Your task to perform on an android device: Add "corsair k70" to the cart on bestbuy.com Image 0: 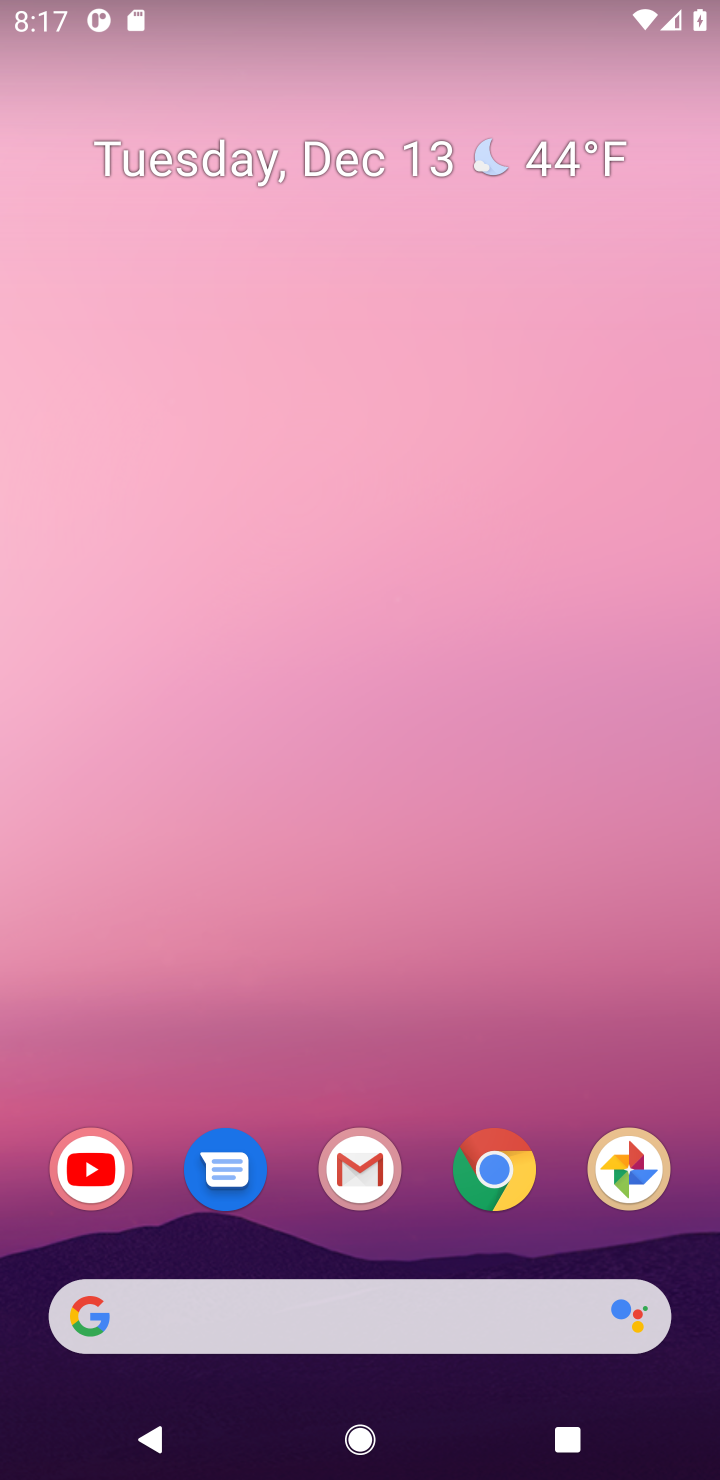
Step 0: click (498, 1200)
Your task to perform on an android device: Add "corsair k70" to the cart on bestbuy.com Image 1: 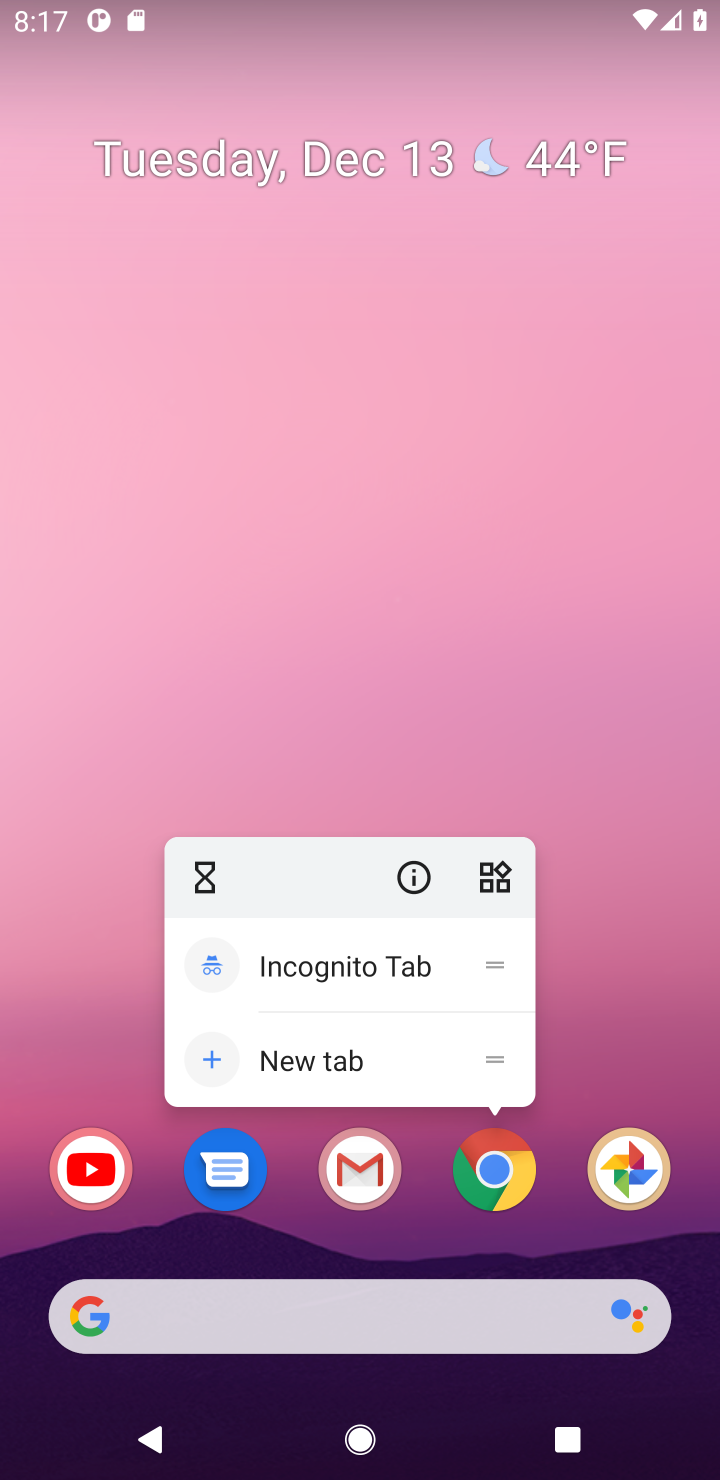
Step 1: click (498, 1200)
Your task to perform on an android device: Add "corsair k70" to the cart on bestbuy.com Image 2: 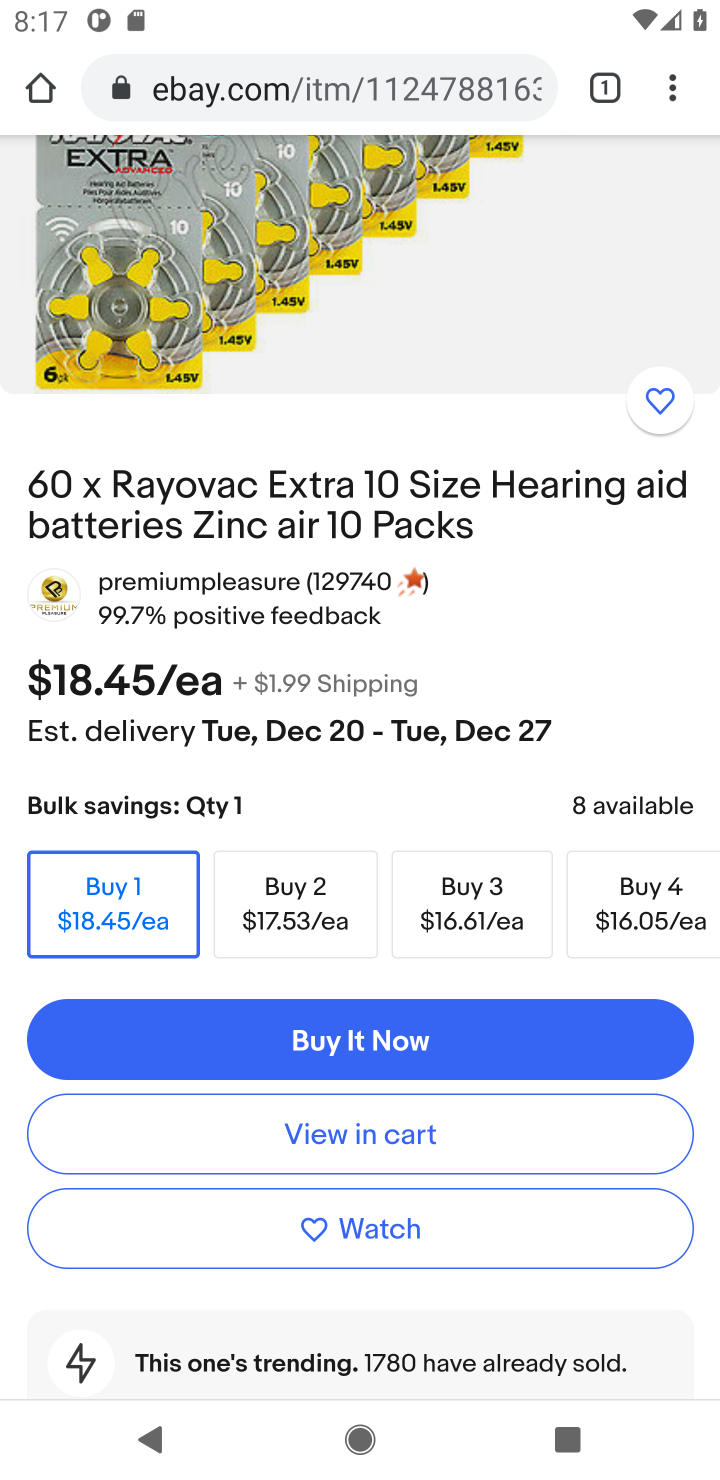
Step 2: click (339, 92)
Your task to perform on an android device: Add "corsair k70" to the cart on bestbuy.com Image 3: 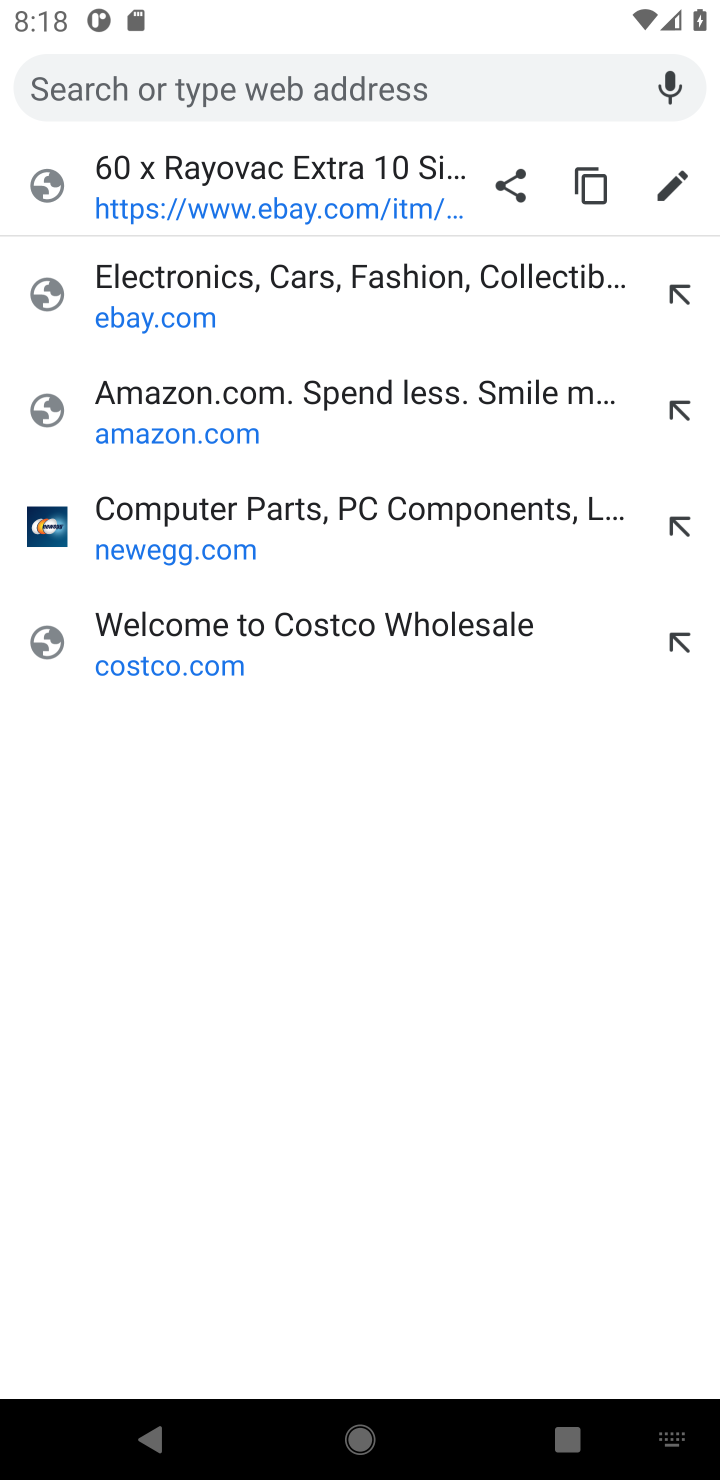
Step 3: type "corsair k70"
Your task to perform on an android device: Add "corsair k70" to the cart on bestbuy.com Image 4: 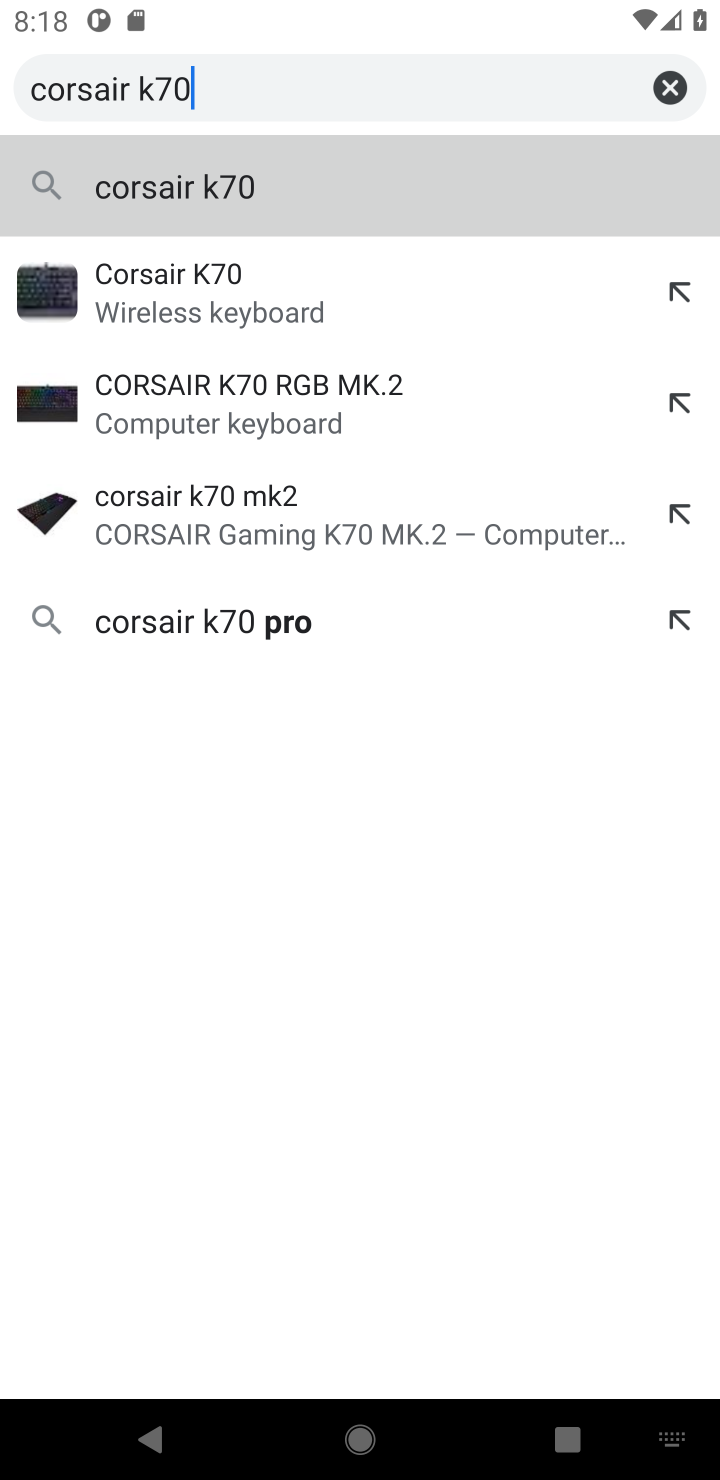
Step 4: click (236, 237)
Your task to perform on an android device: Add "corsair k70" to the cart on bestbuy.com Image 5: 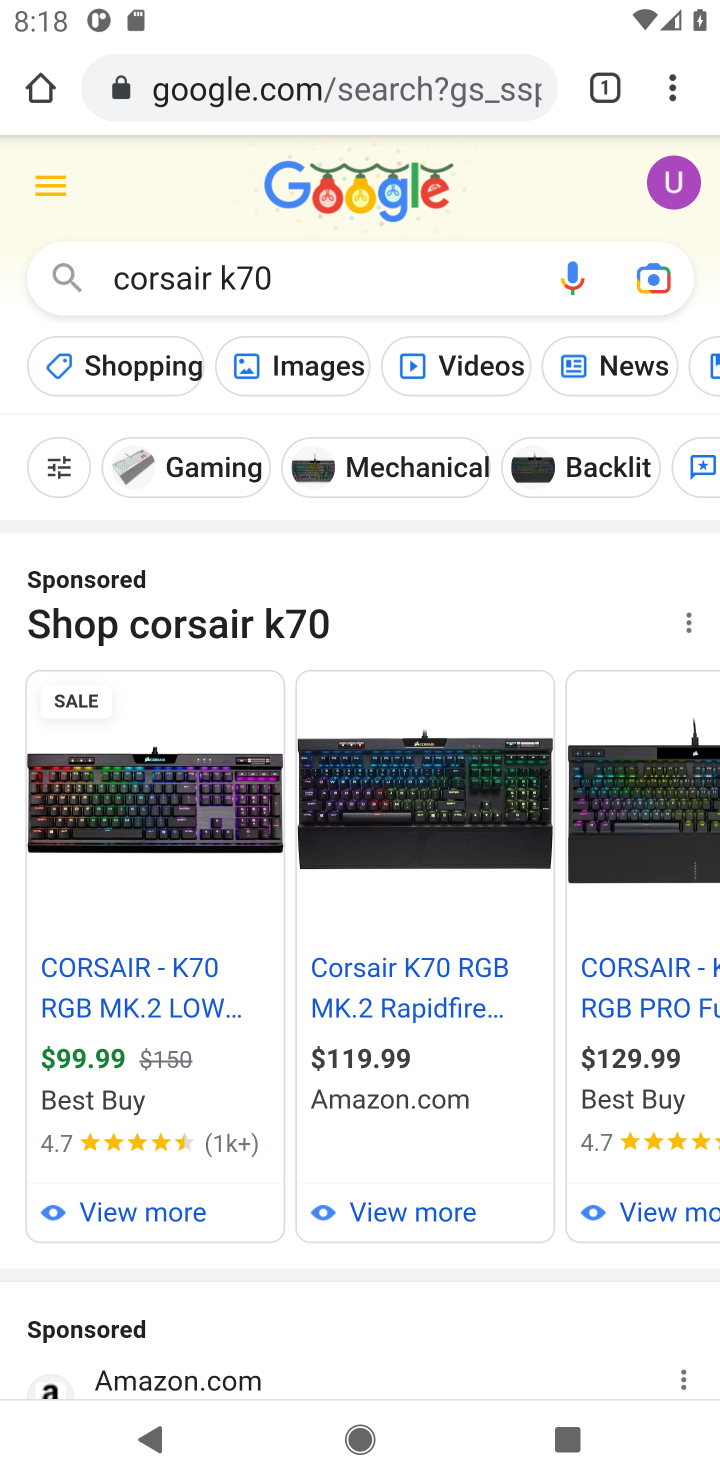
Step 5: click (164, 887)
Your task to perform on an android device: Add "corsair k70" to the cart on bestbuy.com Image 6: 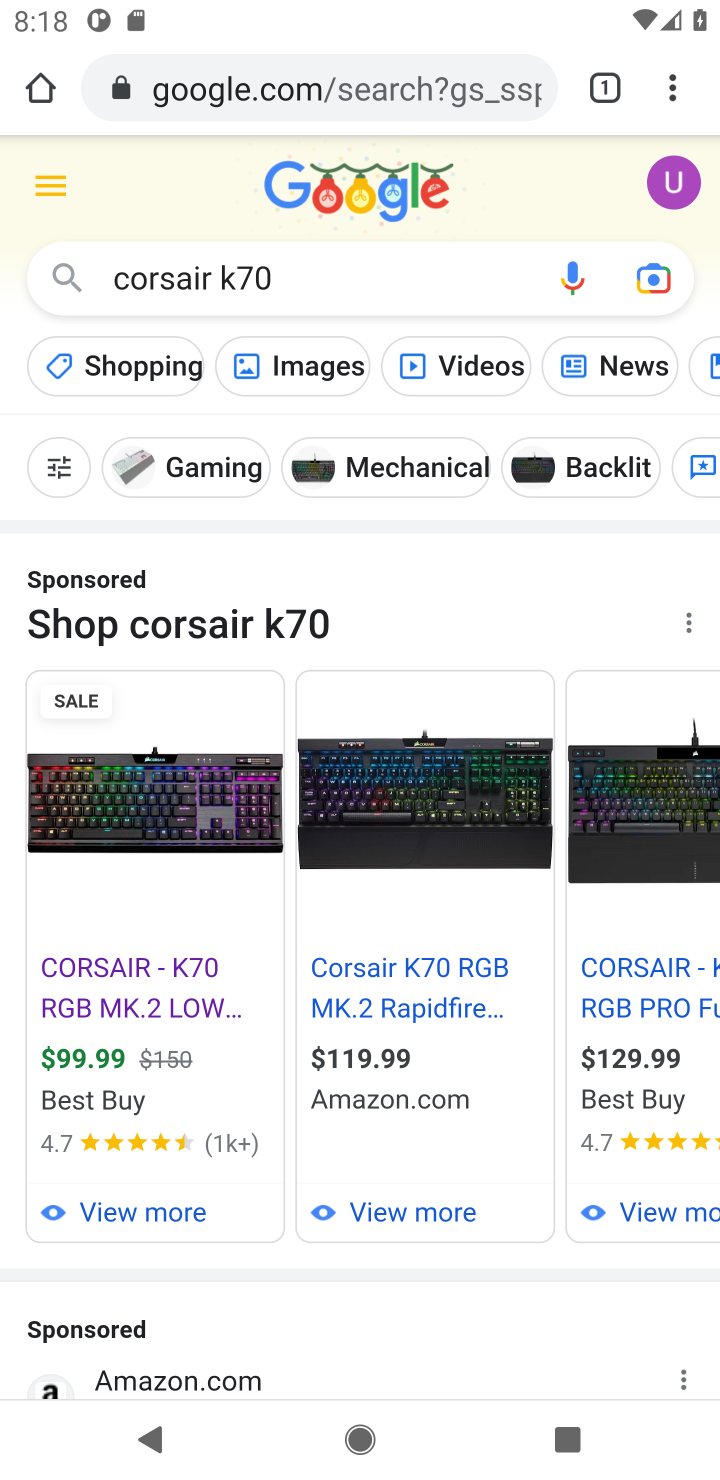
Step 6: click (117, 989)
Your task to perform on an android device: Add "corsair k70" to the cart on bestbuy.com Image 7: 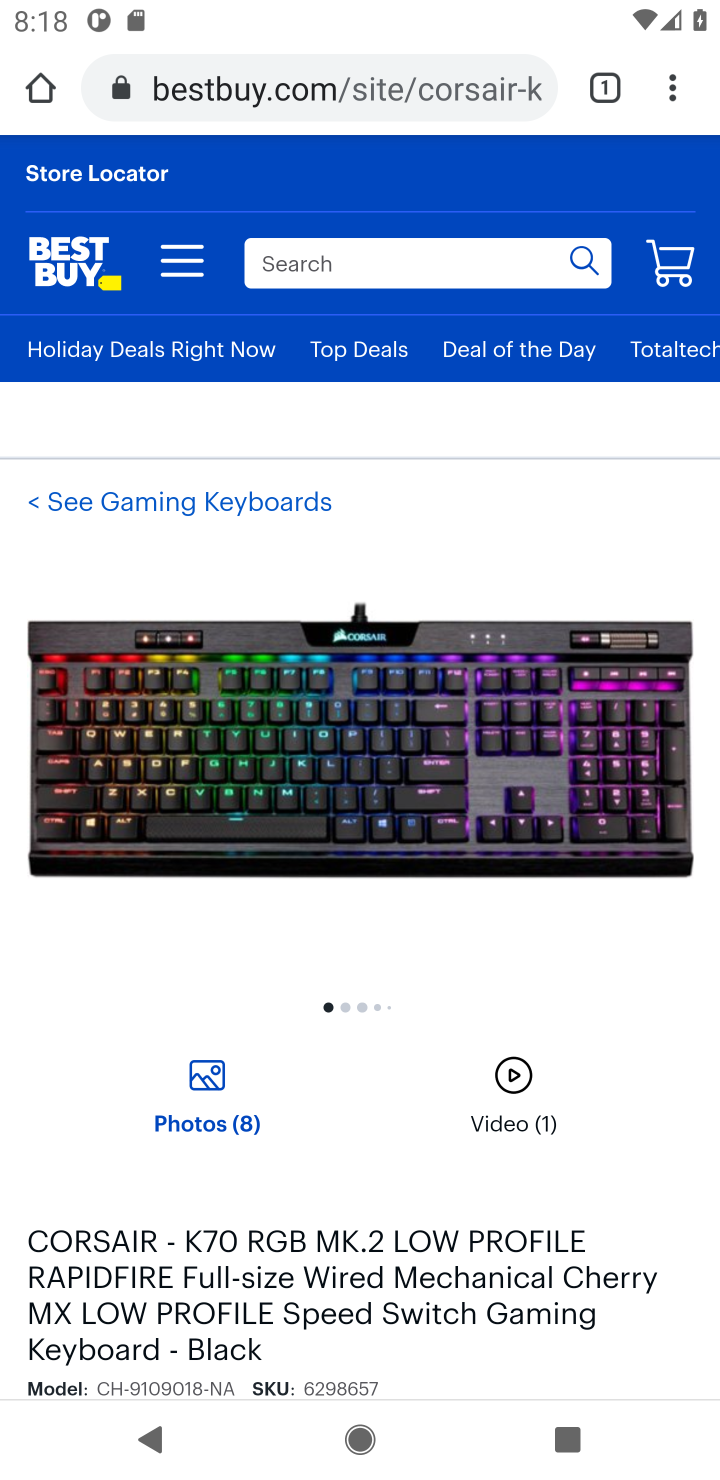
Step 7: drag from (364, 1161) to (362, 833)
Your task to perform on an android device: Add "corsair k70" to the cart on bestbuy.com Image 8: 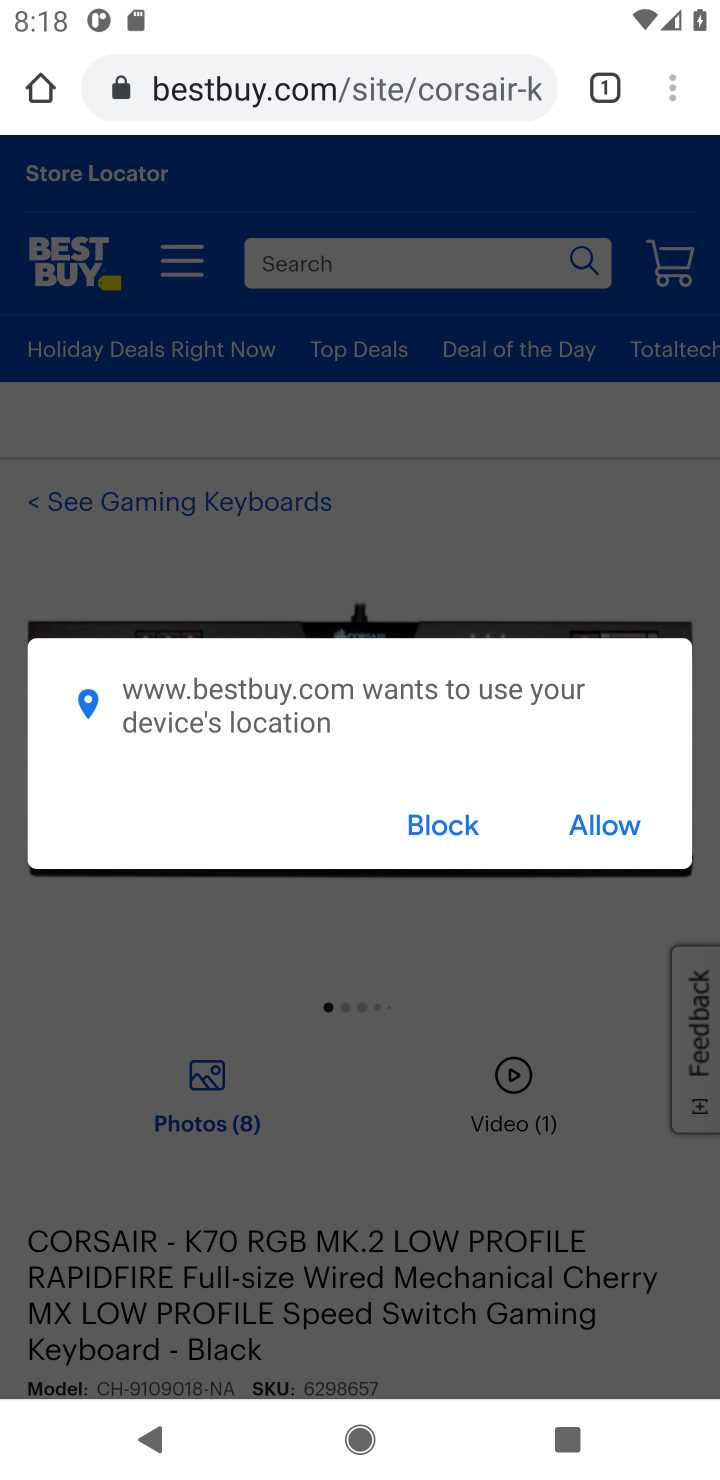
Step 8: click (547, 833)
Your task to perform on an android device: Add "corsair k70" to the cart on bestbuy.com Image 9: 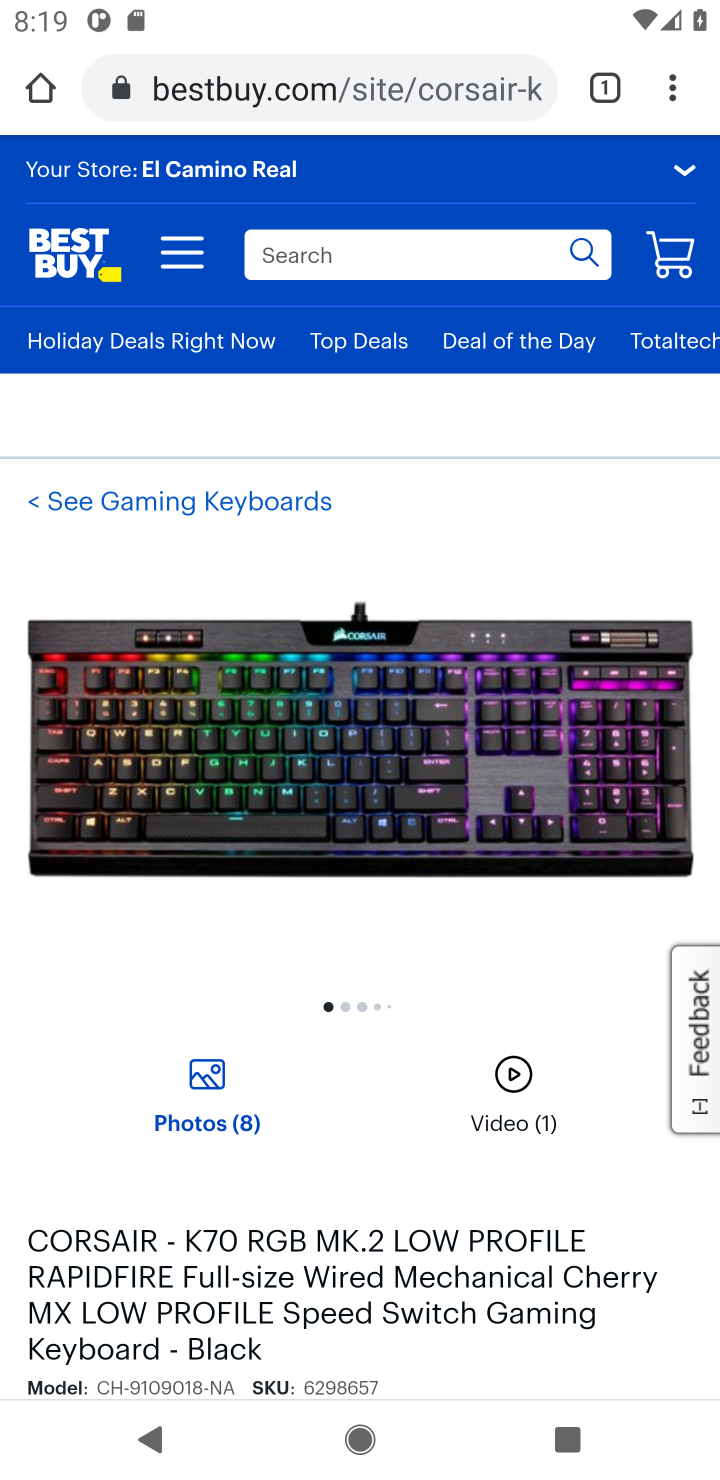
Step 9: drag from (385, 1265) to (366, 621)
Your task to perform on an android device: Add "corsair k70" to the cart on bestbuy.com Image 10: 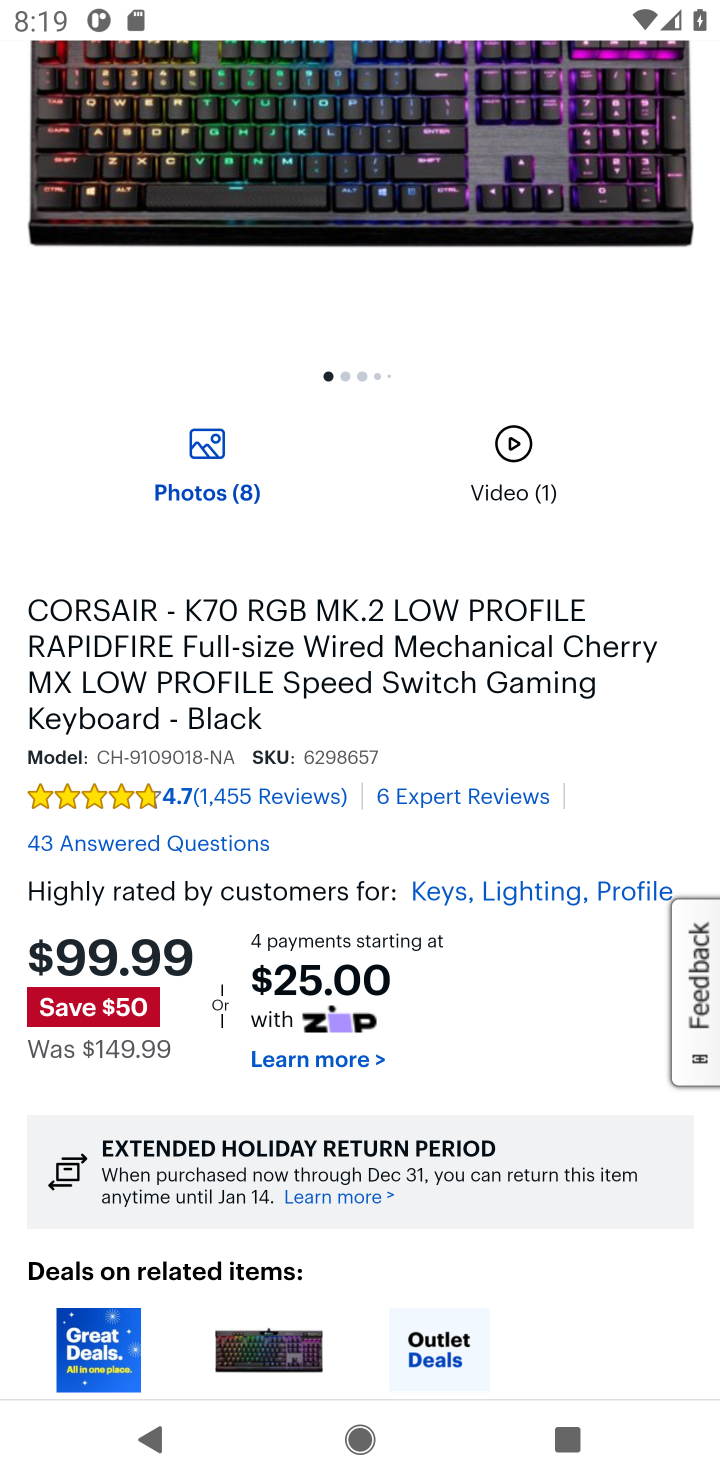
Step 10: drag from (421, 1206) to (474, 497)
Your task to perform on an android device: Add "corsair k70" to the cart on bestbuy.com Image 11: 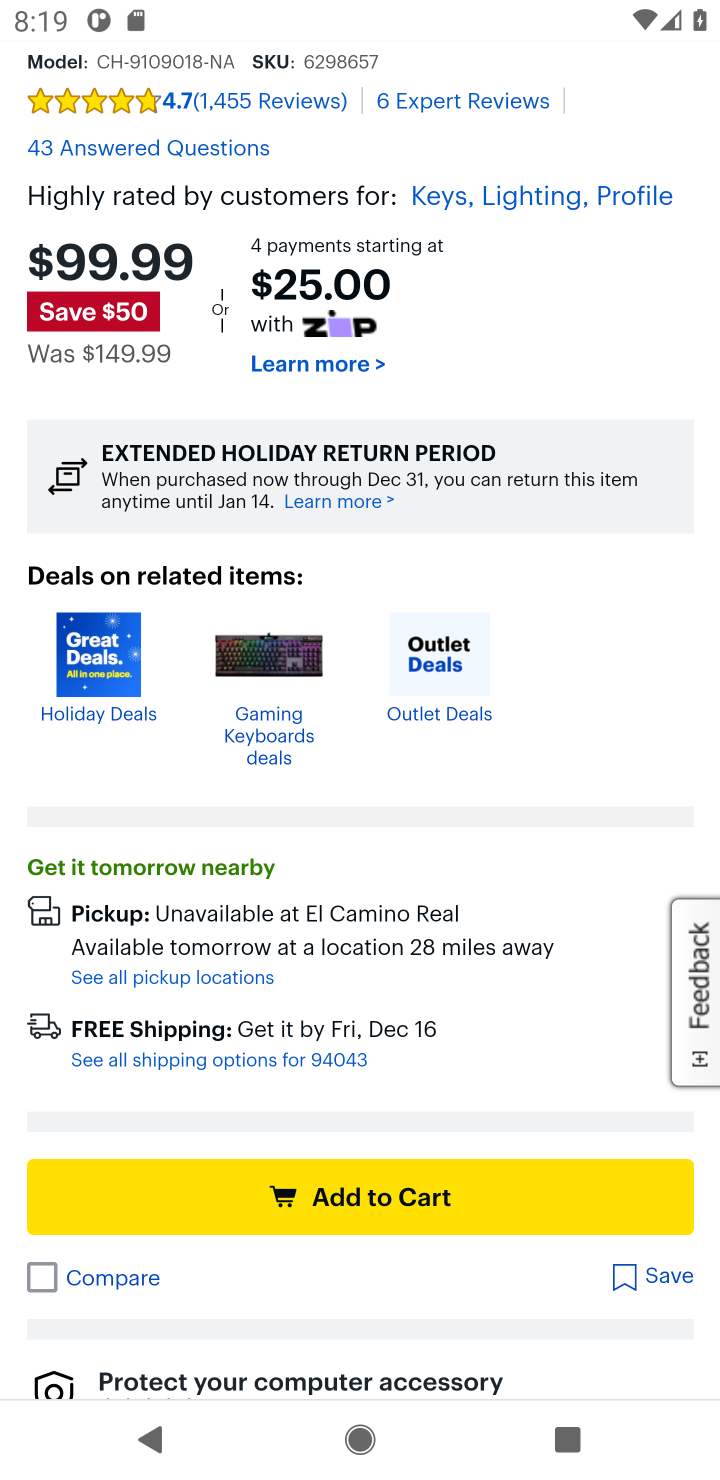
Step 11: click (460, 1189)
Your task to perform on an android device: Add "corsair k70" to the cart on bestbuy.com Image 12: 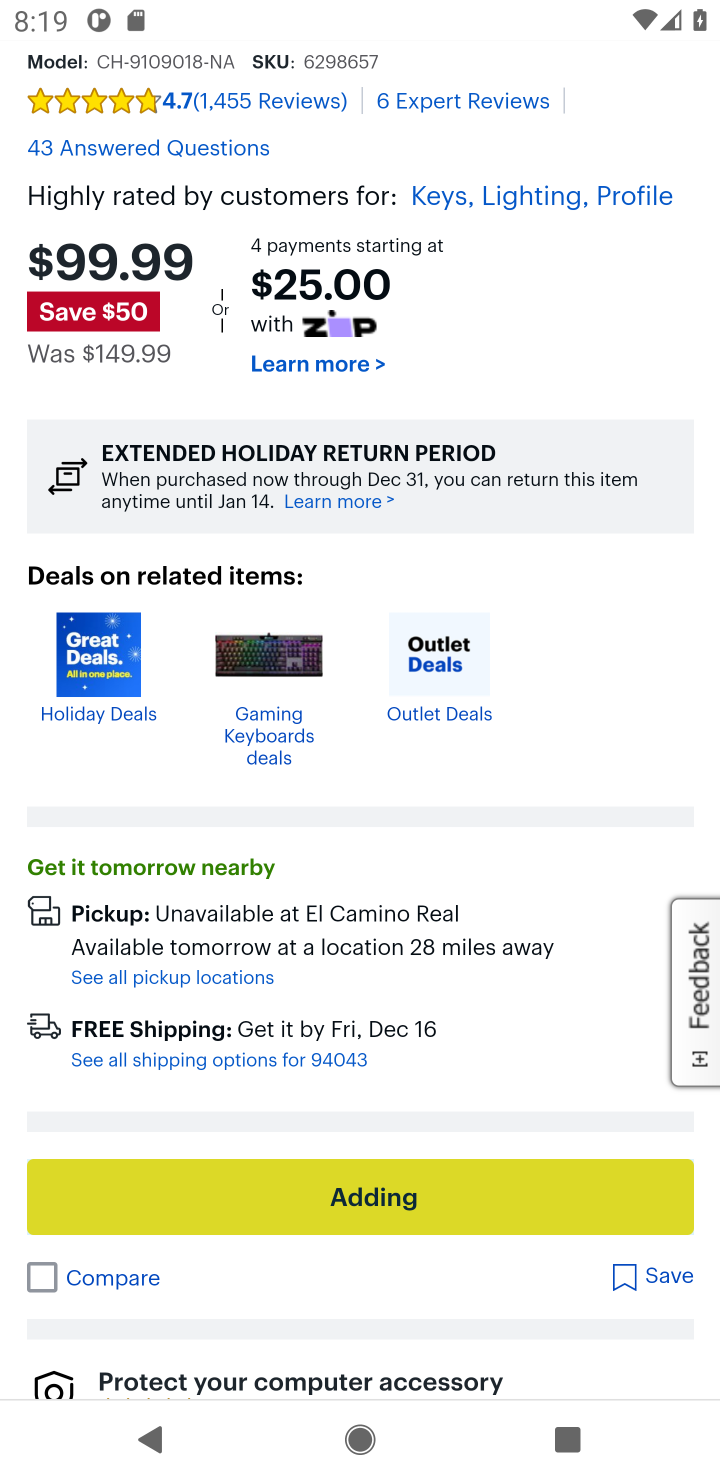
Step 12: task complete